Your task to perform on an android device: turn on the 24-hour format for clock Image 0: 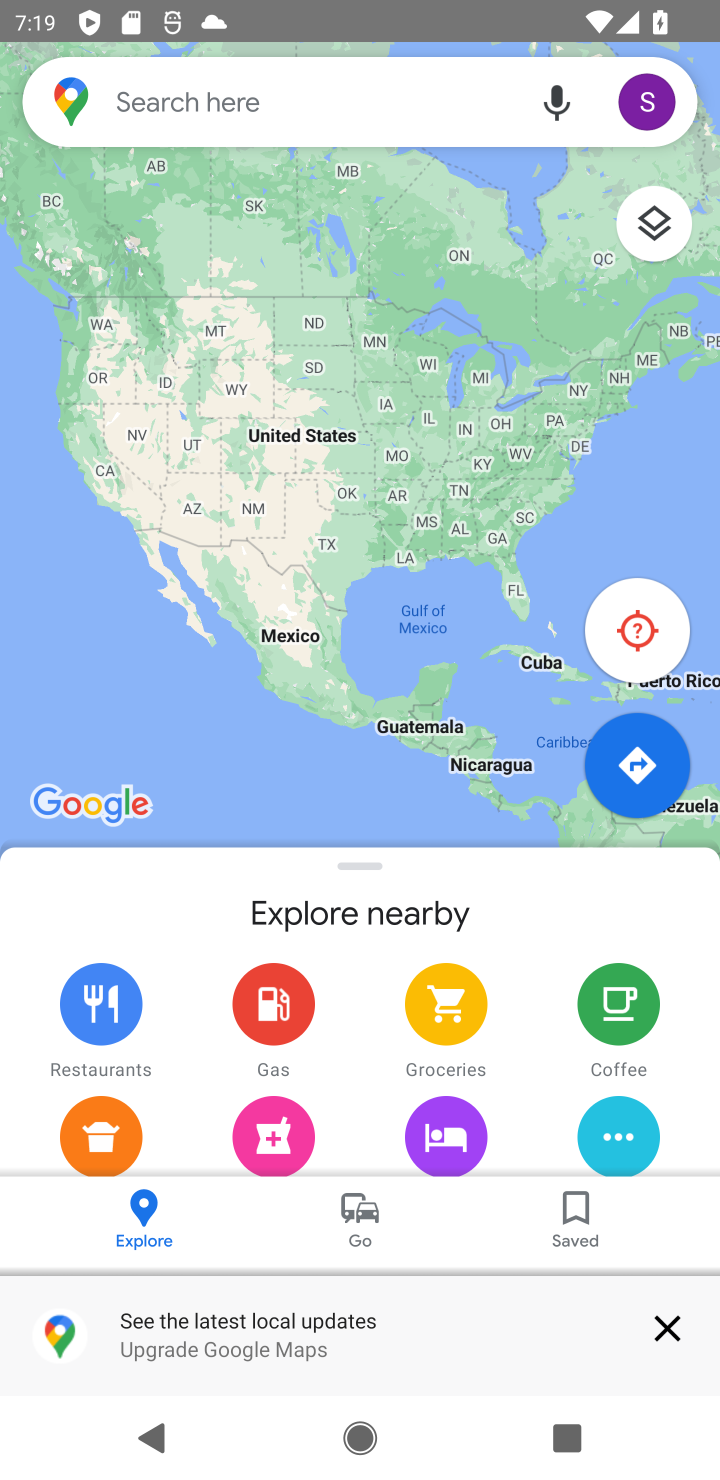
Step 0: press home button
Your task to perform on an android device: turn on the 24-hour format for clock Image 1: 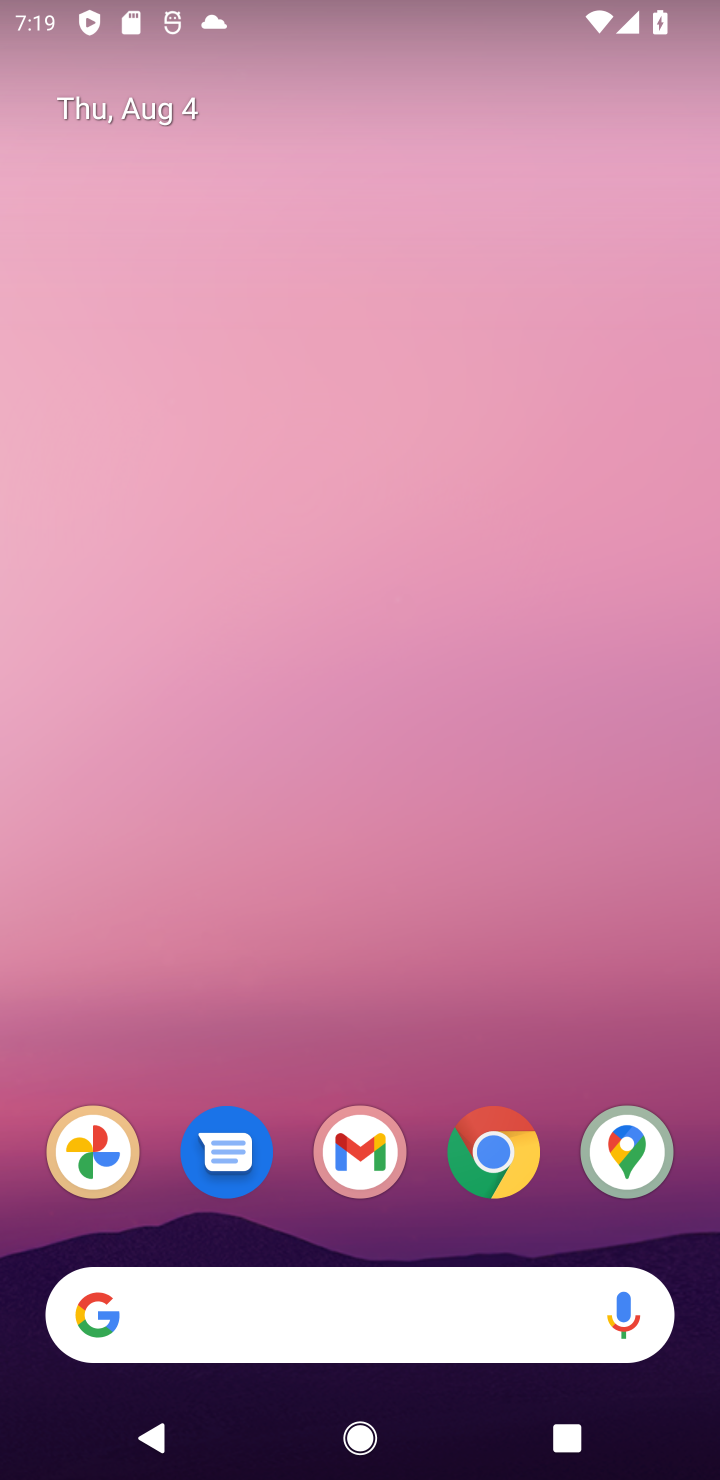
Step 1: drag from (109, 1075) to (495, 182)
Your task to perform on an android device: turn on the 24-hour format for clock Image 2: 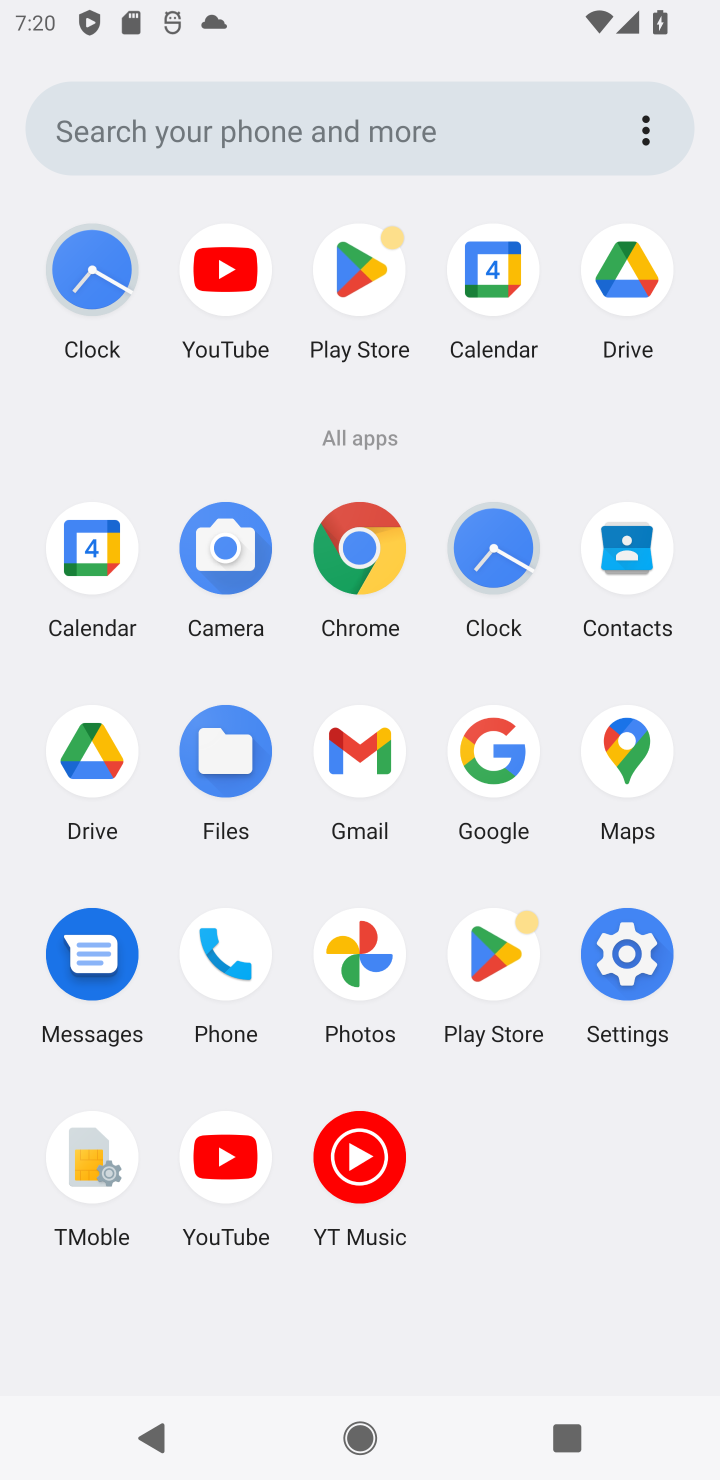
Step 2: click (472, 546)
Your task to perform on an android device: turn on the 24-hour format for clock Image 3: 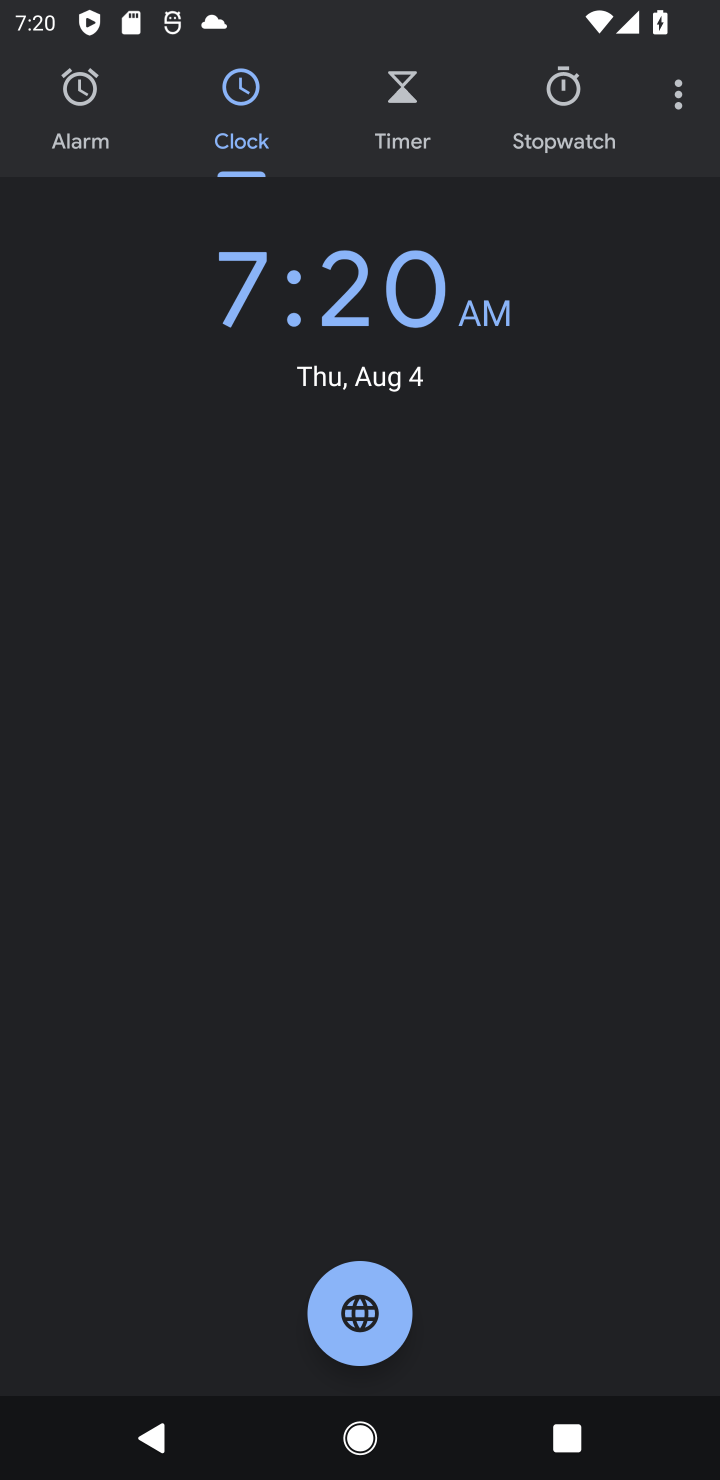
Step 3: click (674, 103)
Your task to perform on an android device: turn on the 24-hour format for clock Image 4: 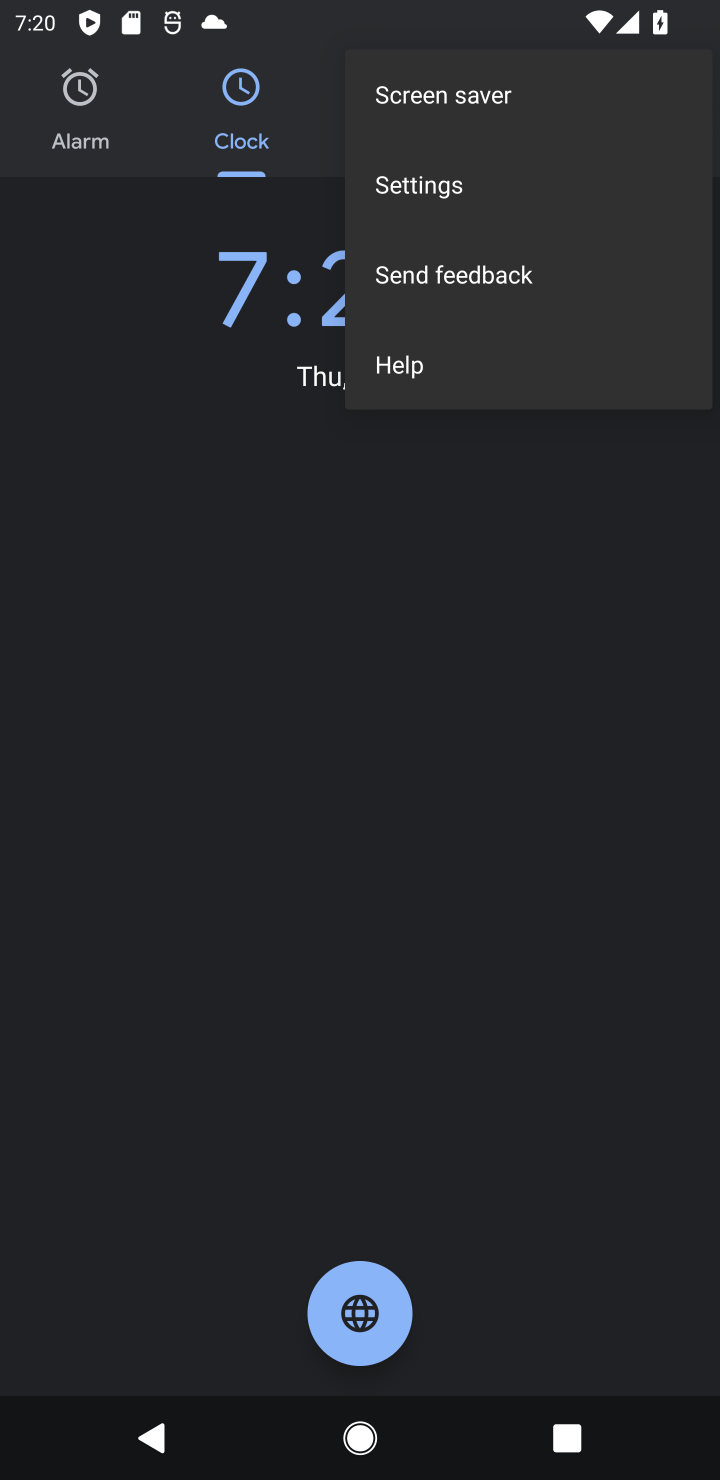
Step 4: click (486, 187)
Your task to perform on an android device: turn on the 24-hour format for clock Image 5: 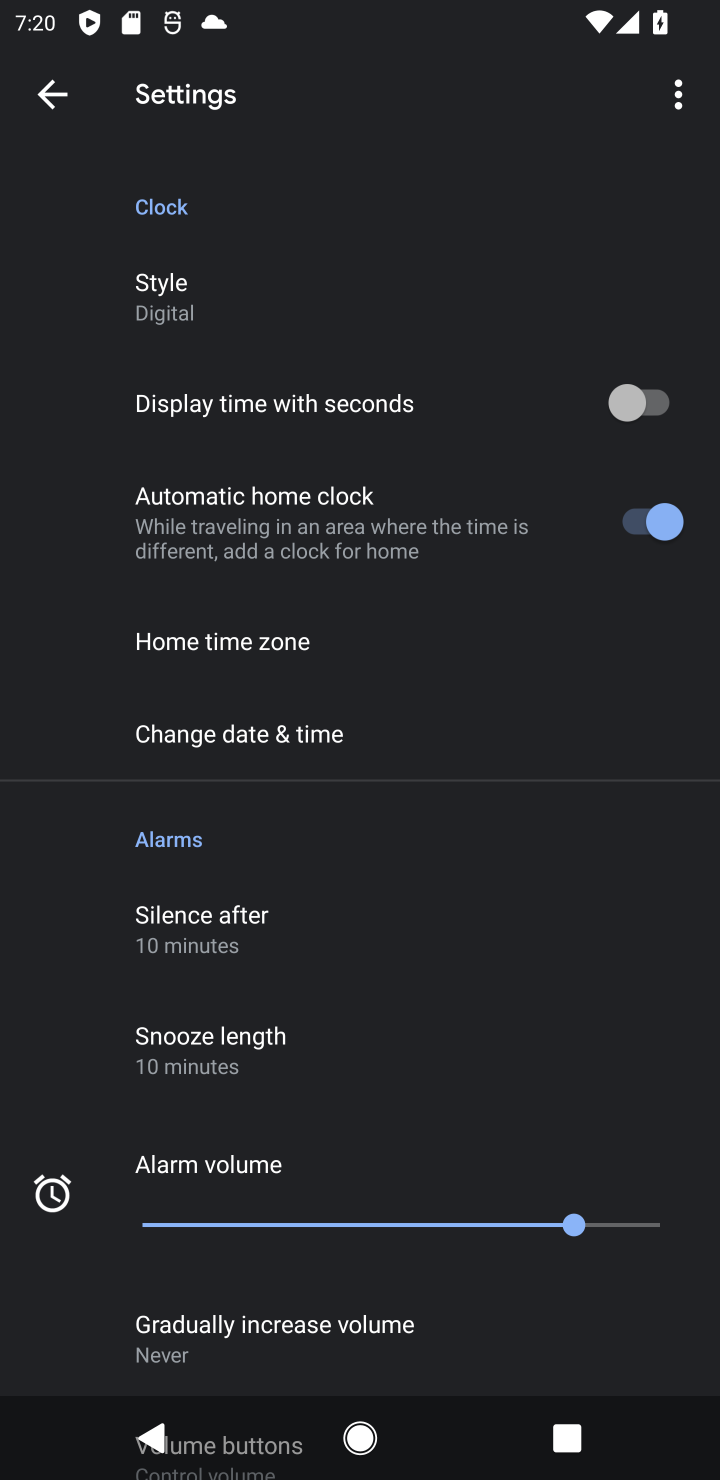
Step 5: click (246, 737)
Your task to perform on an android device: turn on the 24-hour format for clock Image 6: 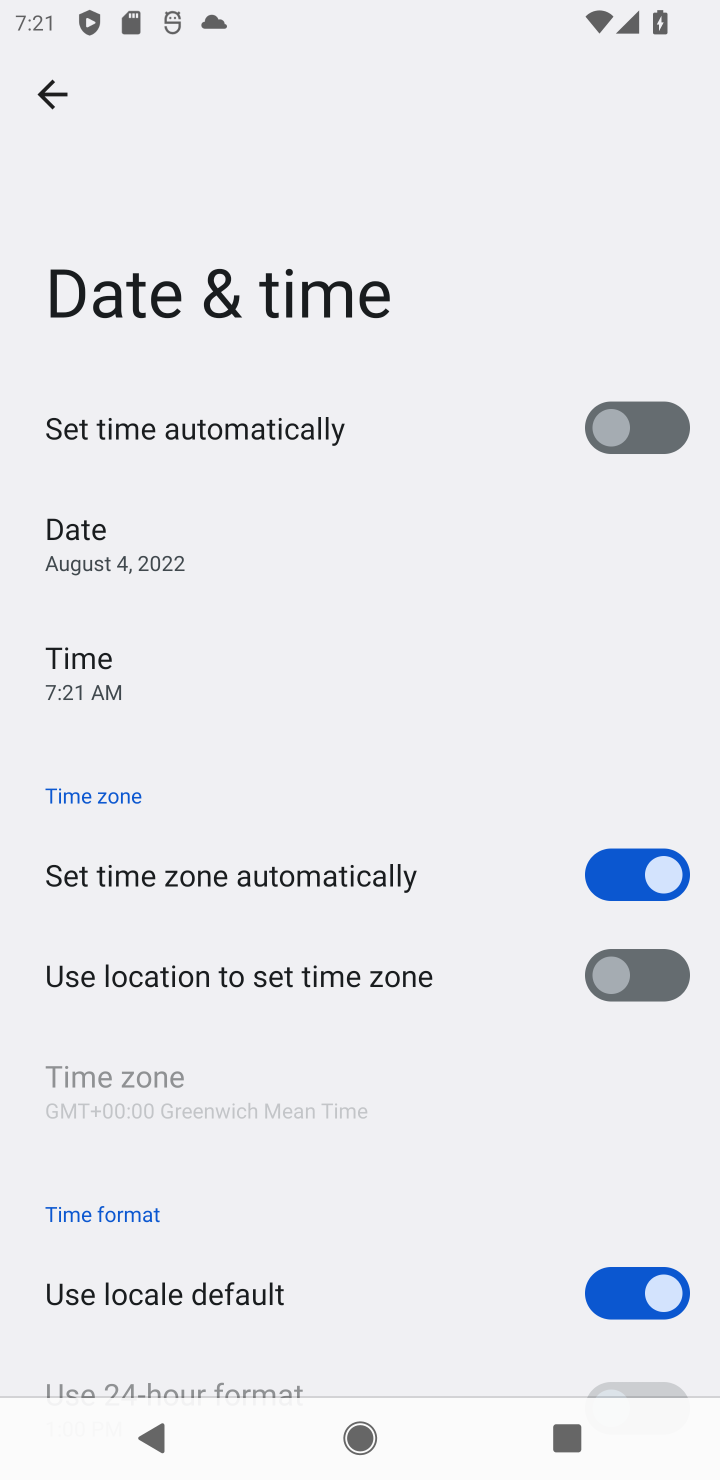
Step 6: drag from (108, 715) to (282, 301)
Your task to perform on an android device: turn on the 24-hour format for clock Image 7: 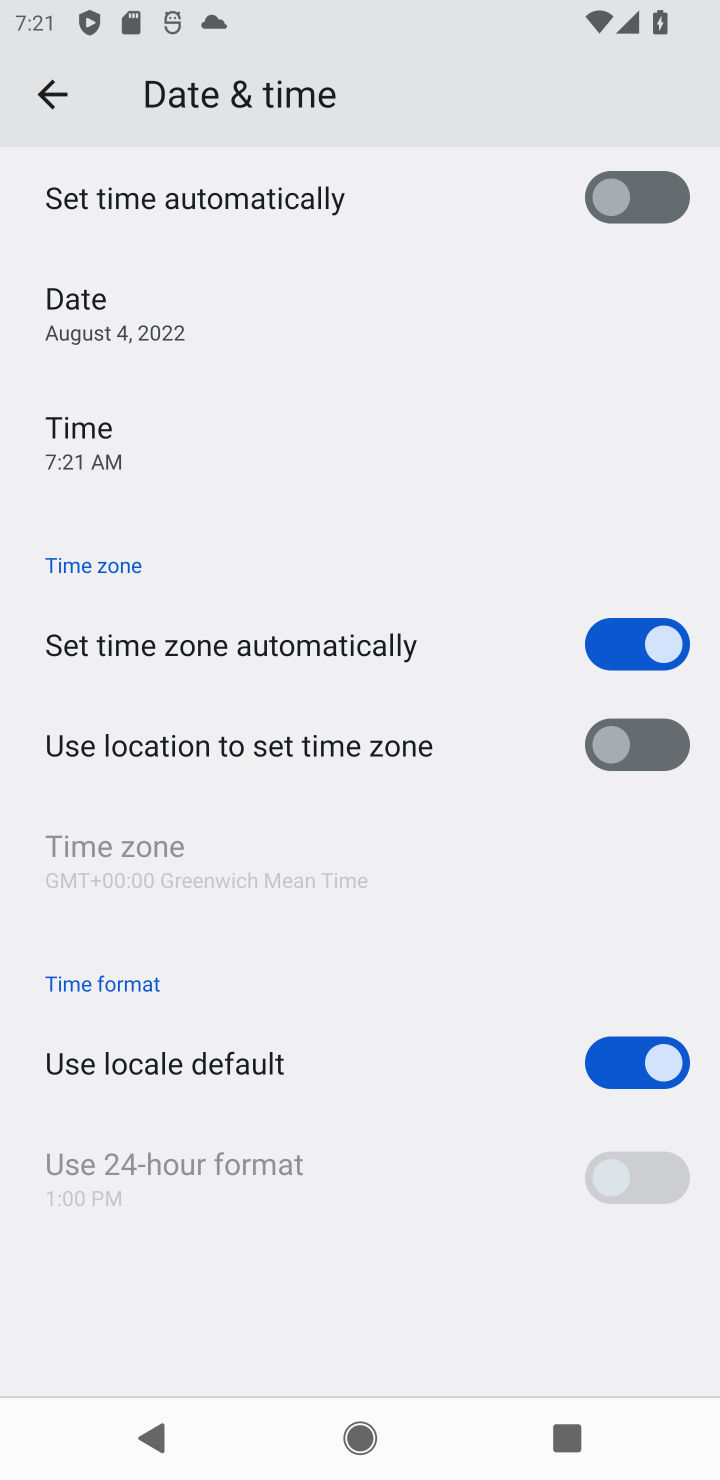
Step 7: click (670, 1173)
Your task to perform on an android device: turn on the 24-hour format for clock Image 8: 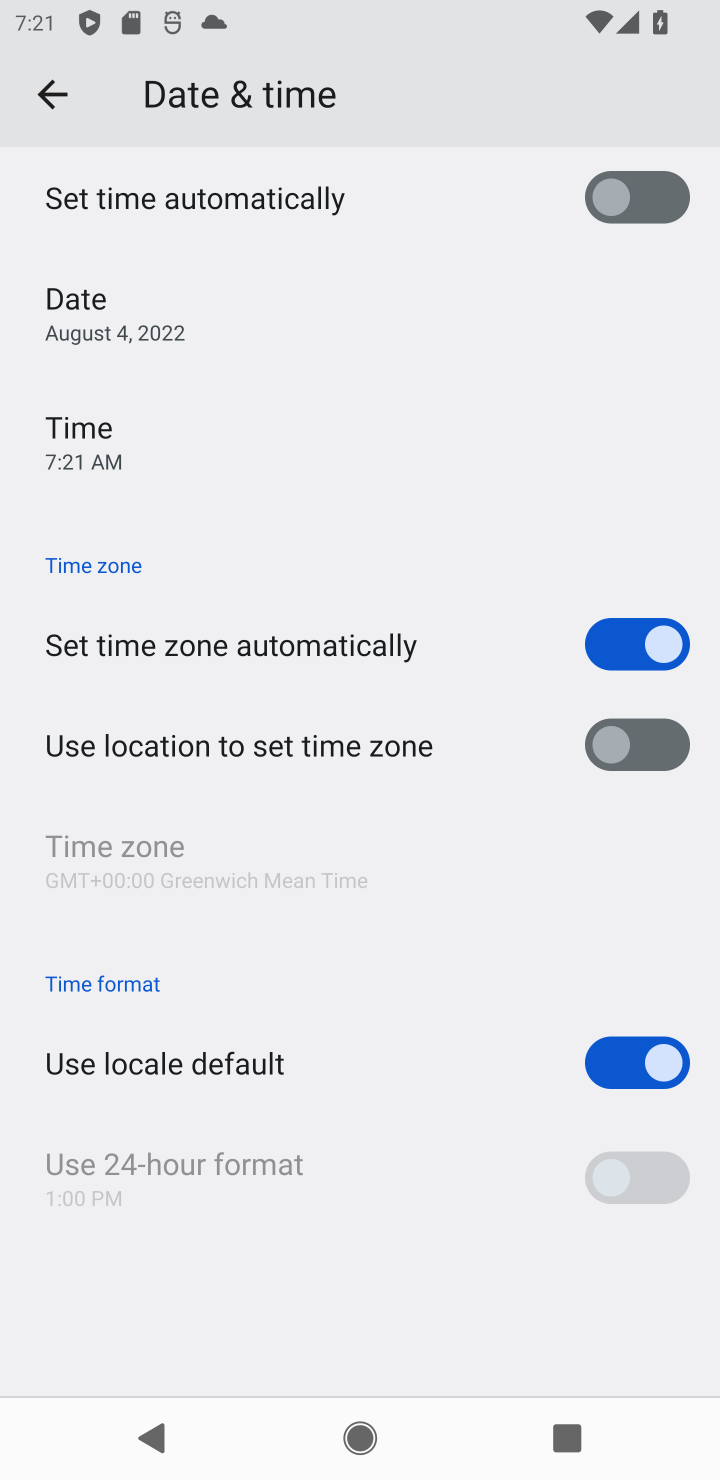
Step 8: click (668, 1061)
Your task to perform on an android device: turn on the 24-hour format for clock Image 9: 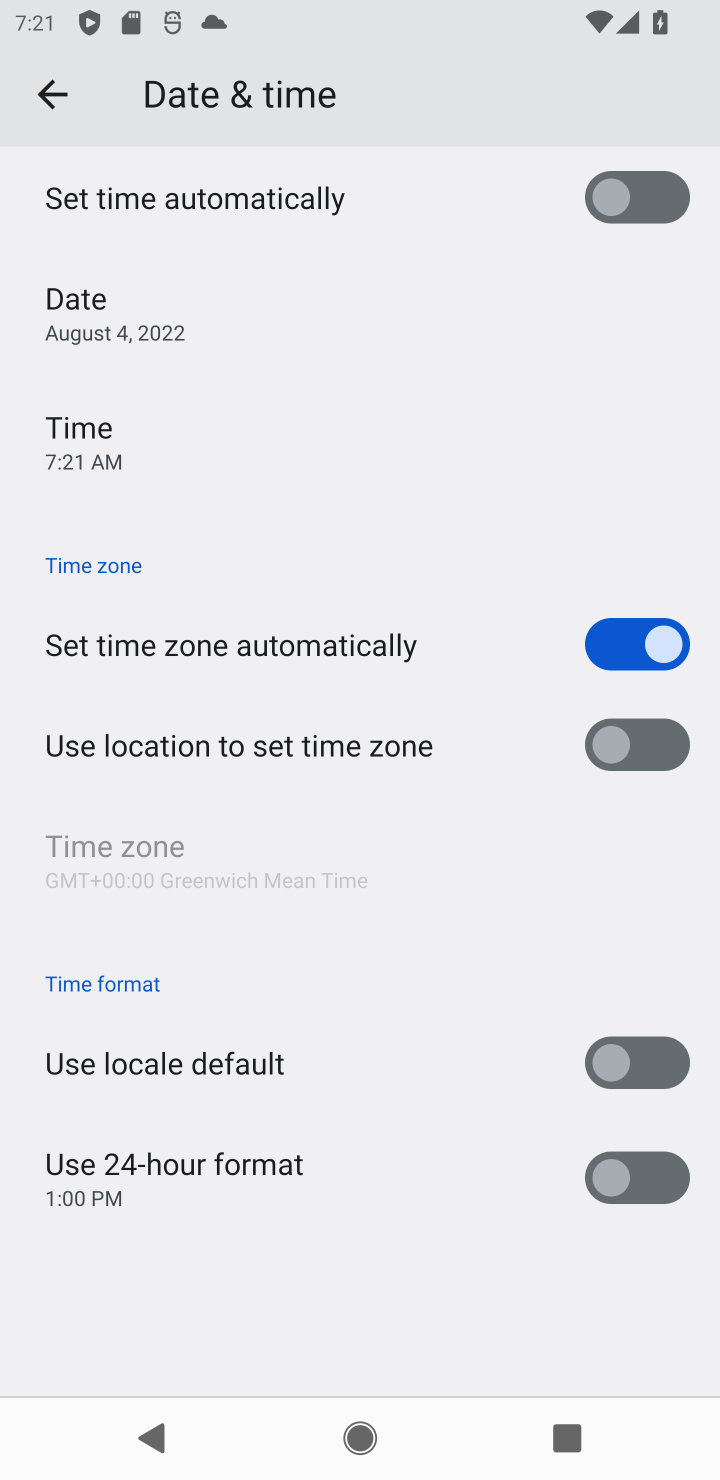
Step 9: click (604, 1170)
Your task to perform on an android device: turn on the 24-hour format for clock Image 10: 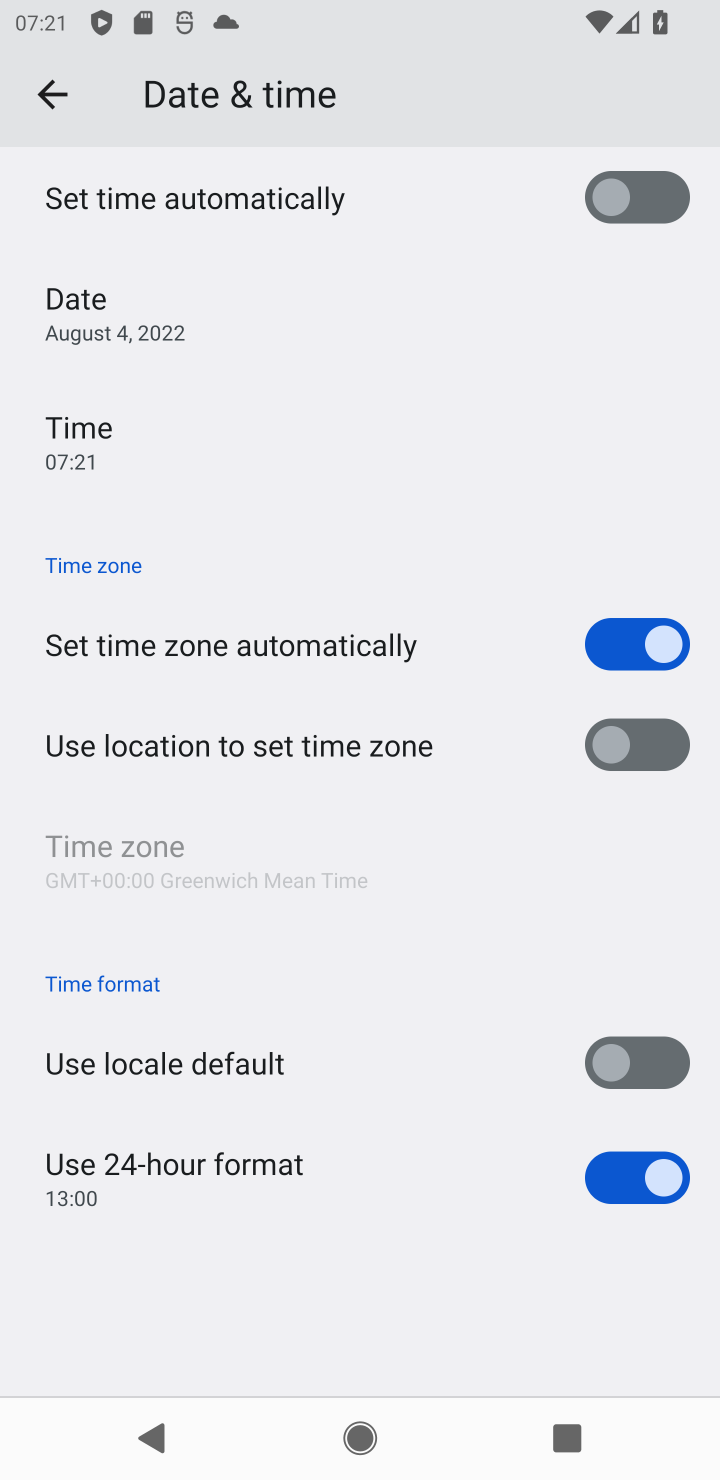
Step 10: task complete